Your task to perform on an android device: Go to eBay Image 0: 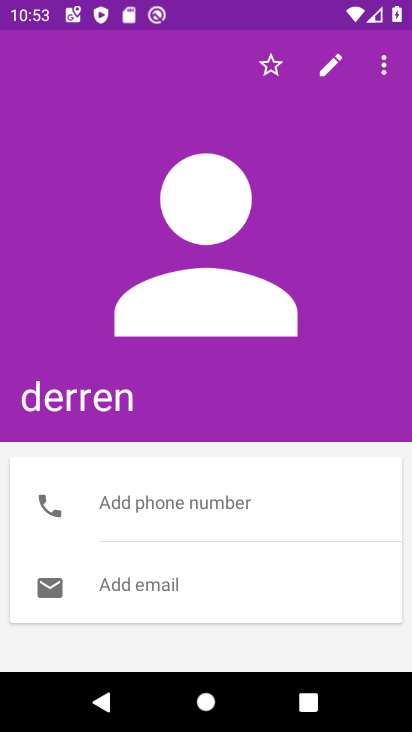
Step 0: press home button
Your task to perform on an android device: Go to eBay Image 1: 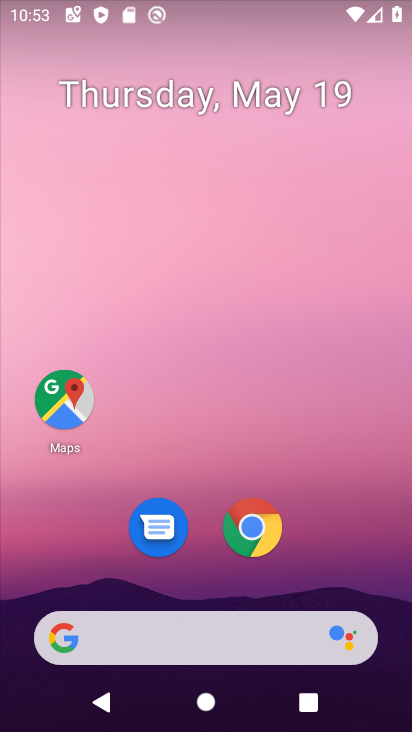
Step 1: click (265, 527)
Your task to perform on an android device: Go to eBay Image 2: 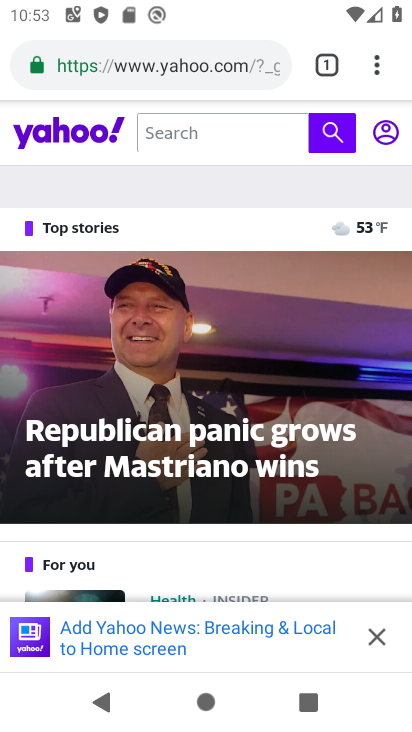
Step 2: click (192, 71)
Your task to perform on an android device: Go to eBay Image 3: 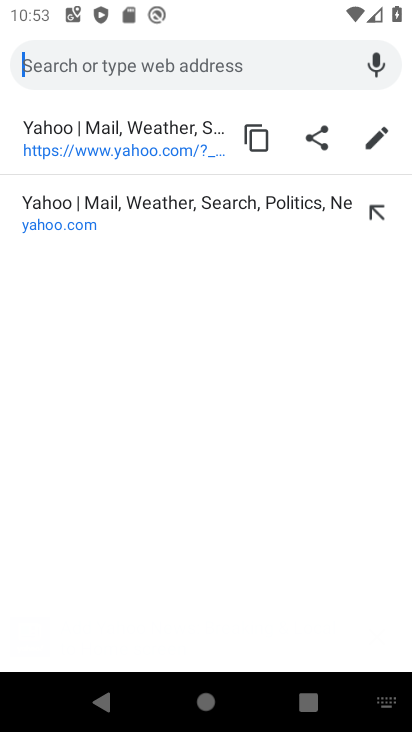
Step 3: type "eBay"
Your task to perform on an android device: Go to eBay Image 4: 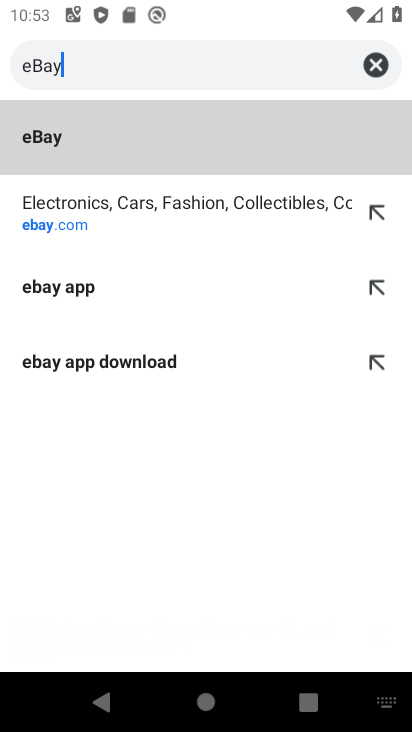
Step 4: click (85, 147)
Your task to perform on an android device: Go to eBay Image 5: 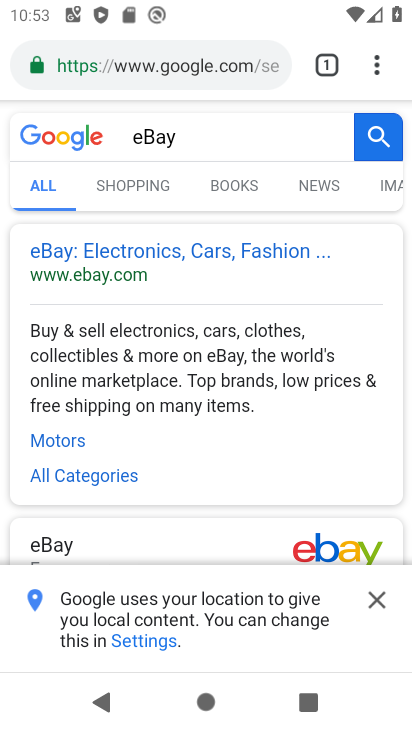
Step 5: task complete